Your task to perform on an android device: open app "Google Maps" Image 0: 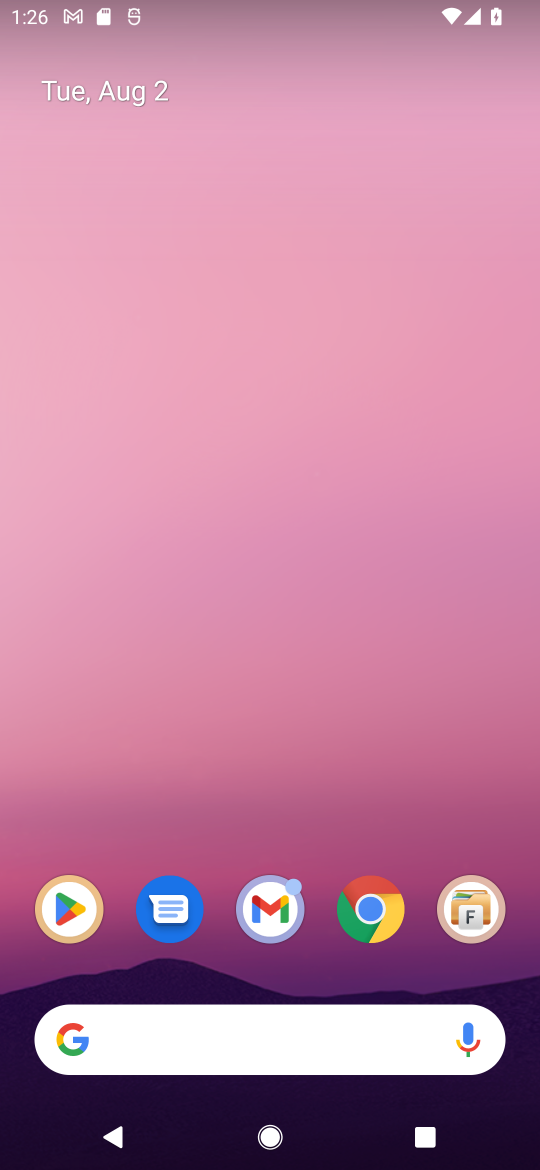
Step 0: press home button
Your task to perform on an android device: open app "Google Maps" Image 1: 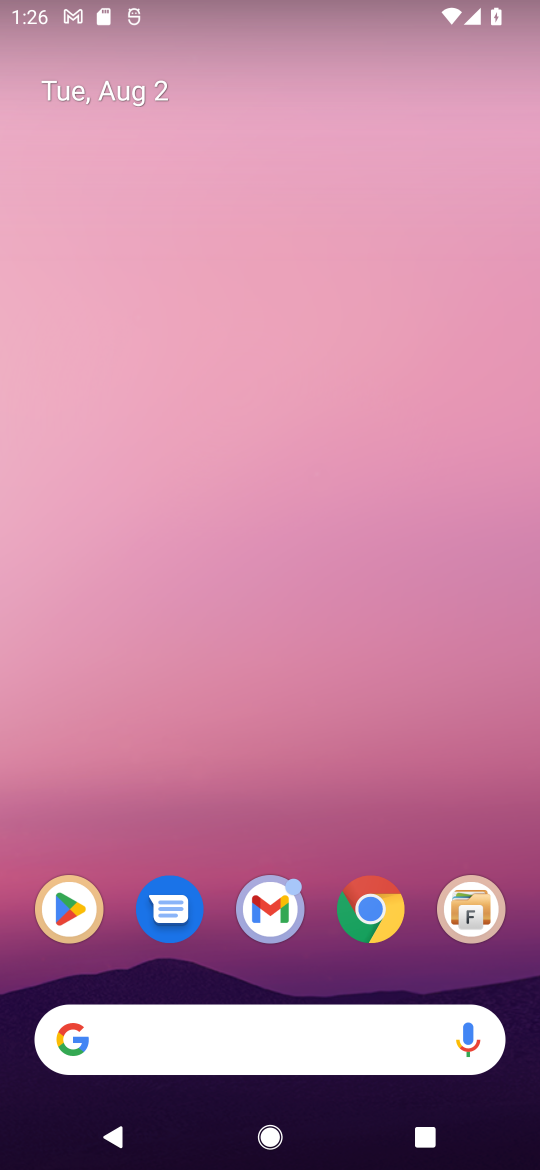
Step 1: click (64, 918)
Your task to perform on an android device: open app "Google Maps" Image 2: 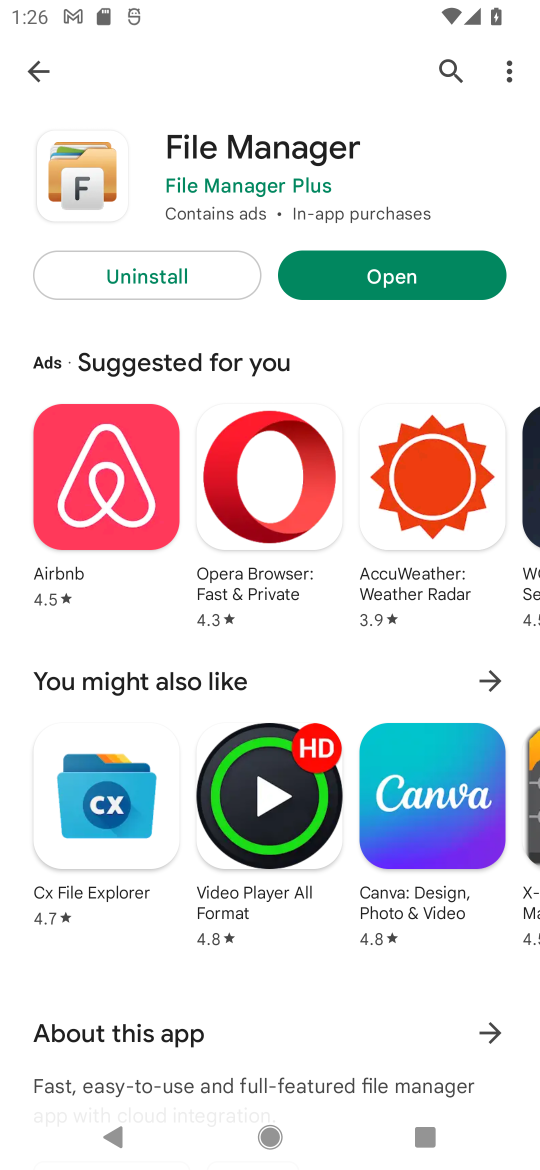
Step 2: click (442, 63)
Your task to perform on an android device: open app "Google Maps" Image 3: 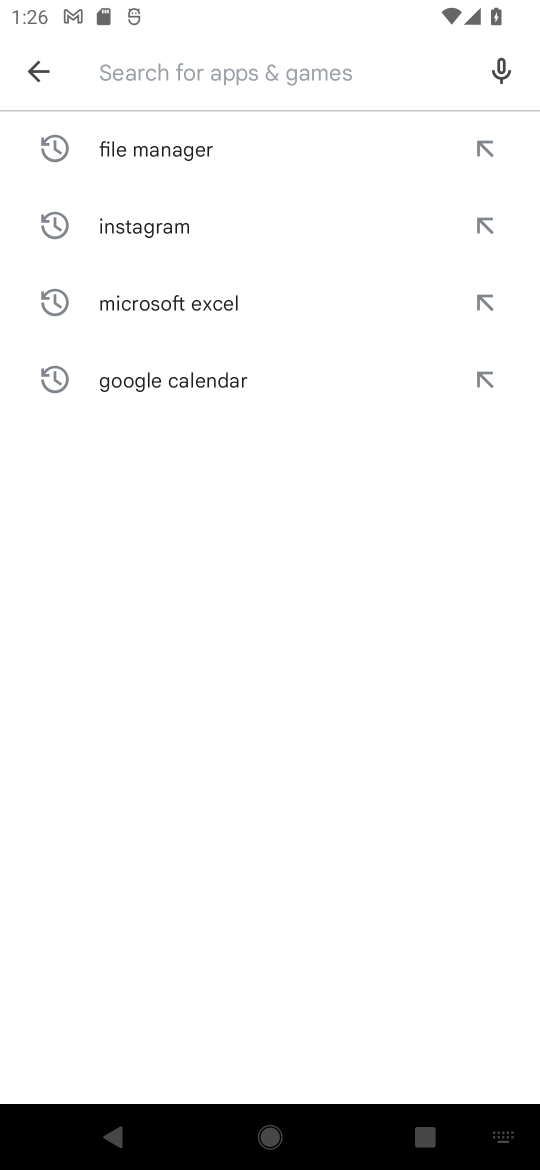
Step 3: type "Google Maps"
Your task to perform on an android device: open app "Google Maps" Image 4: 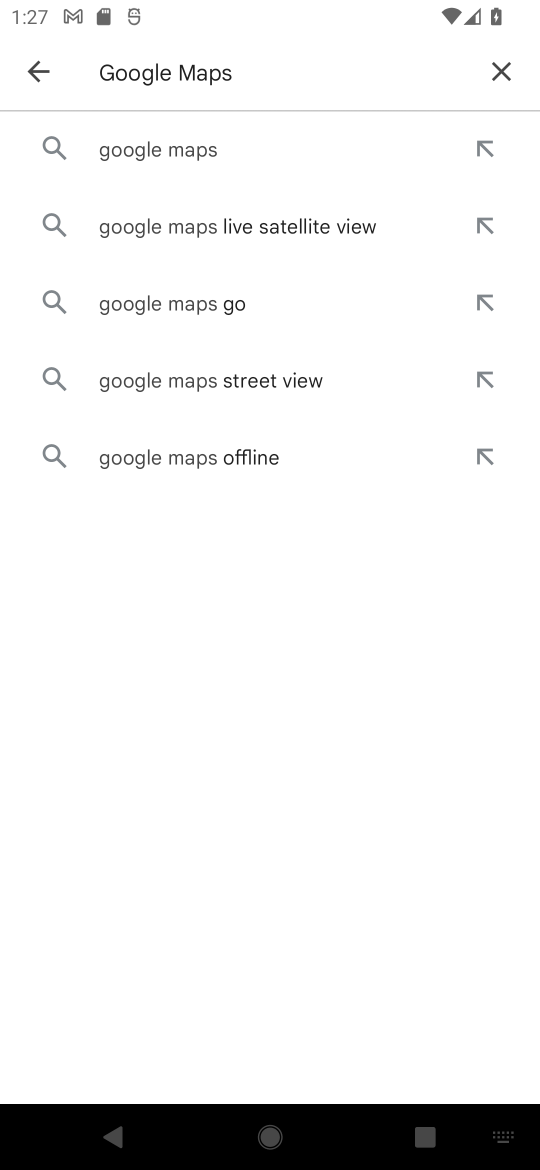
Step 4: click (175, 154)
Your task to perform on an android device: open app "Google Maps" Image 5: 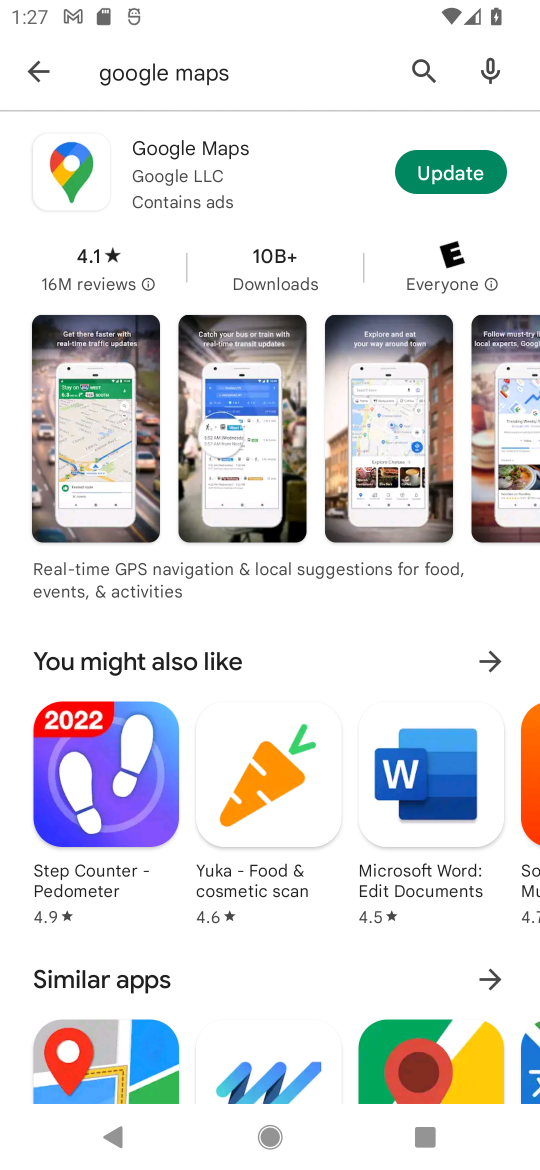
Step 5: click (146, 178)
Your task to perform on an android device: open app "Google Maps" Image 6: 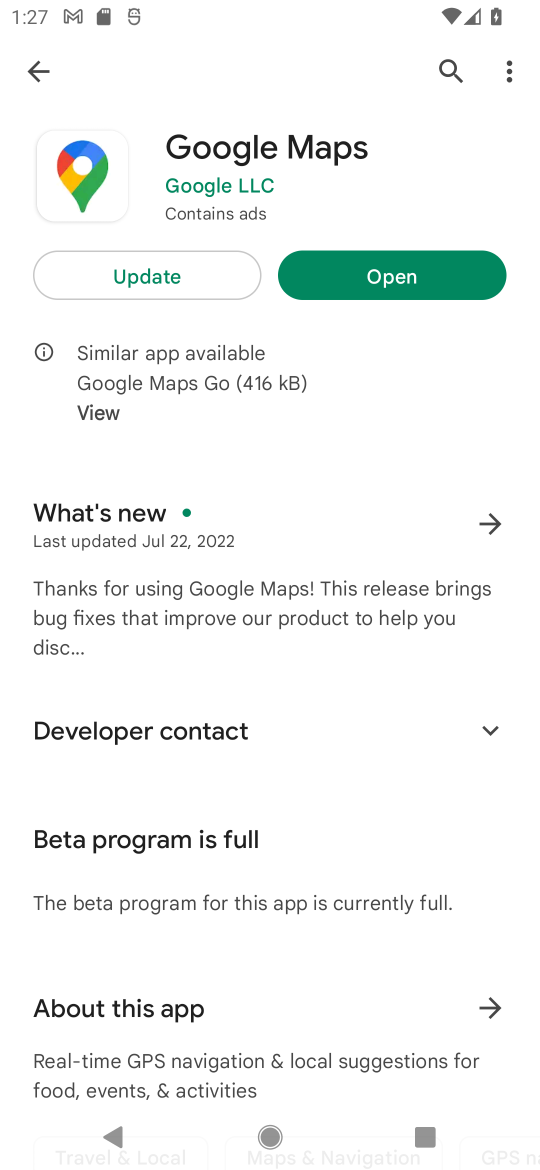
Step 6: click (409, 281)
Your task to perform on an android device: open app "Google Maps" Image 7: 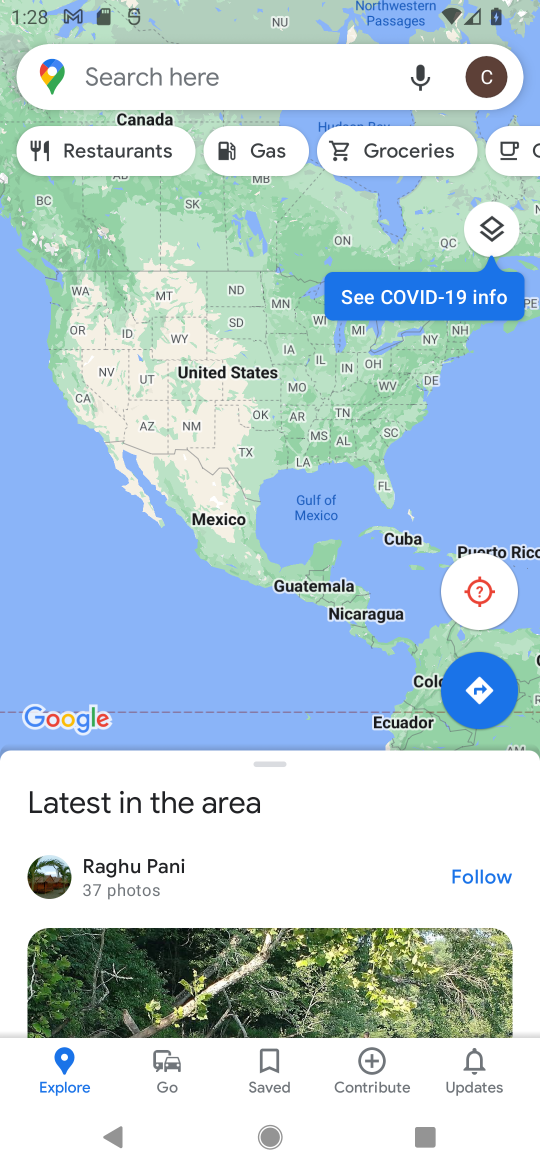
Step 7: task complete